Your task to perform on an android device: Open Google Maps Image 0: 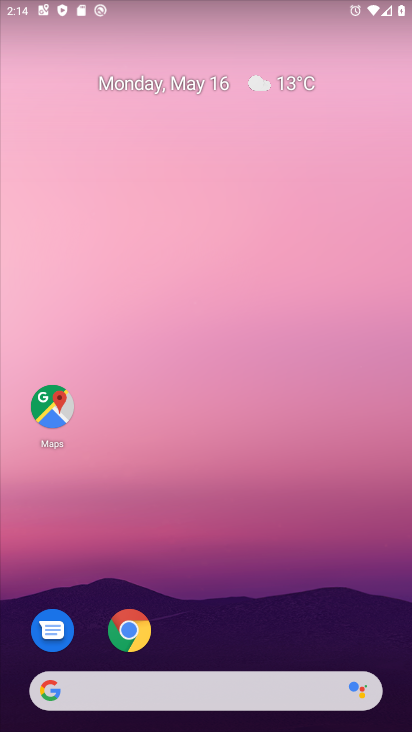
Step 0: click (52, 415)
Your task to perform on an android device: Open Google Maps Image 1: 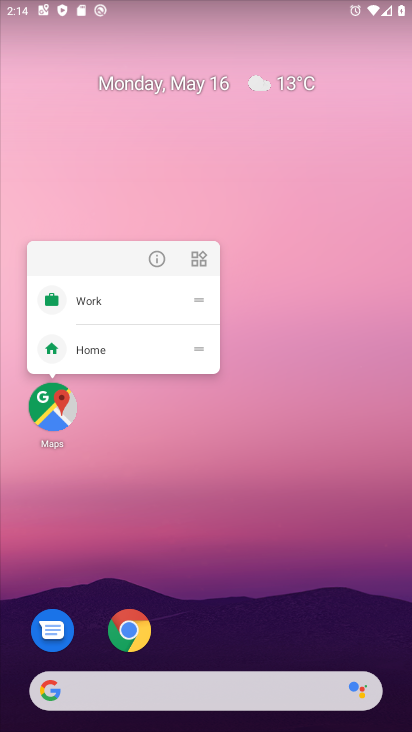
Step 1: click (52, 419)
Your task to perform on an android device: Open Google Maps Image 2: 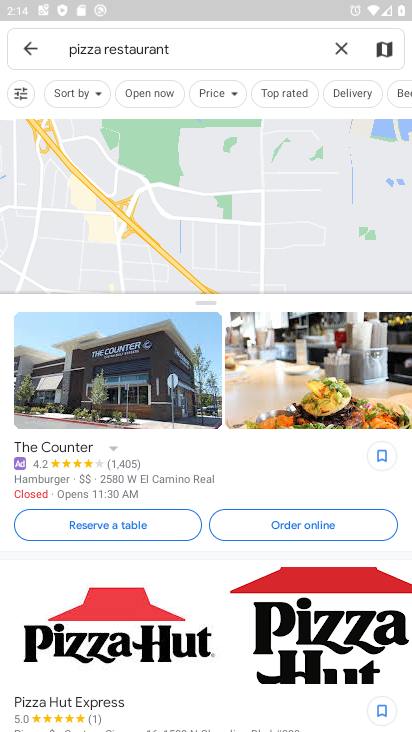
Step 2: task complete